Your task to perform on an android device: install app "Cash App" Image 0: 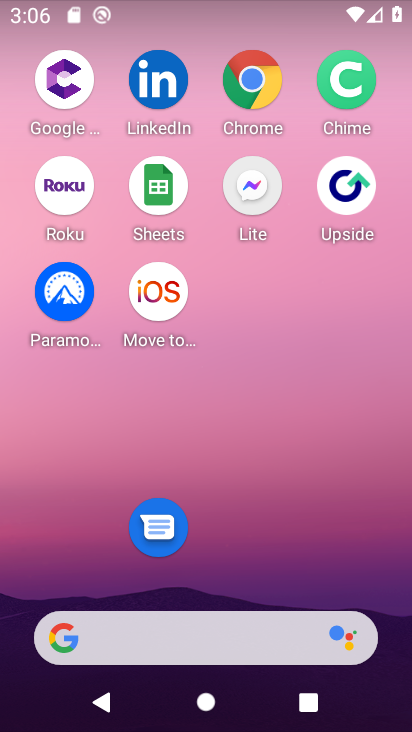
Step 0: drag from (255, 585) to (310, 93)
Your task to perform on an android device: install app "Cash App" Image 1: 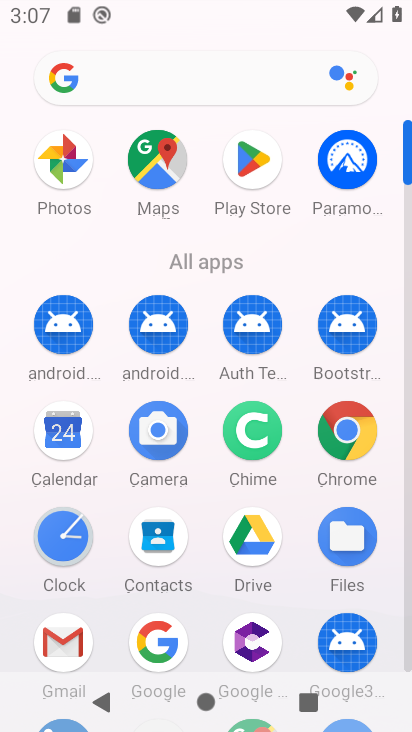
Step 1: click (256, 163)
Your task to perform on an android device: install app "Cash App" Image 2: 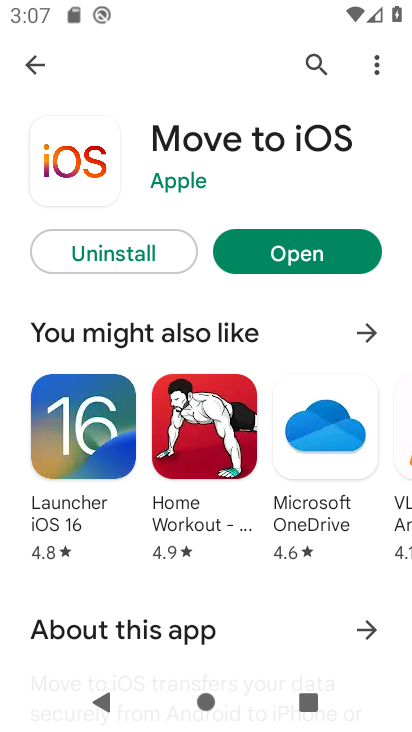
Step 2: click (308, 78)
Your task to perform on an android device: install app "Cash App" Image 3: 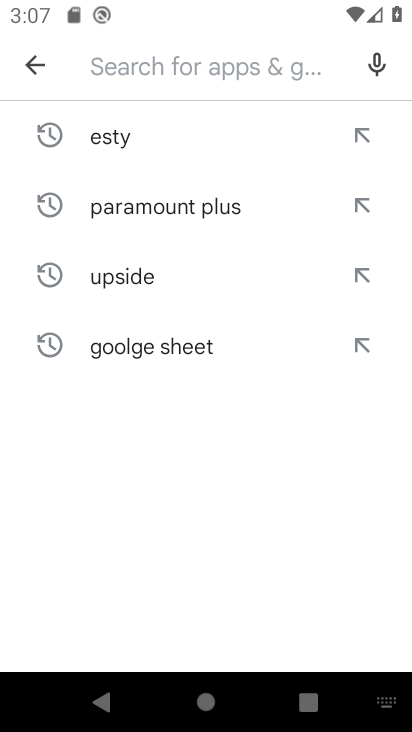
Step 3: type "cash app"
Your task to perform on an android device: install app "Cash App" Image 4: 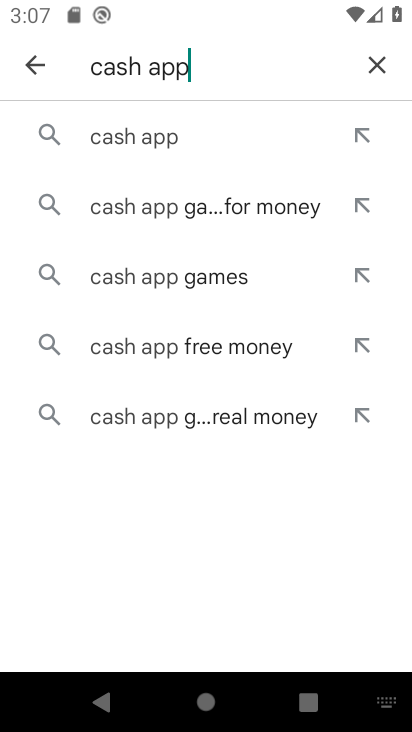
Step 4: click (209, 118)
Your task to perform on an android device: install app "Cash App" Image 5: 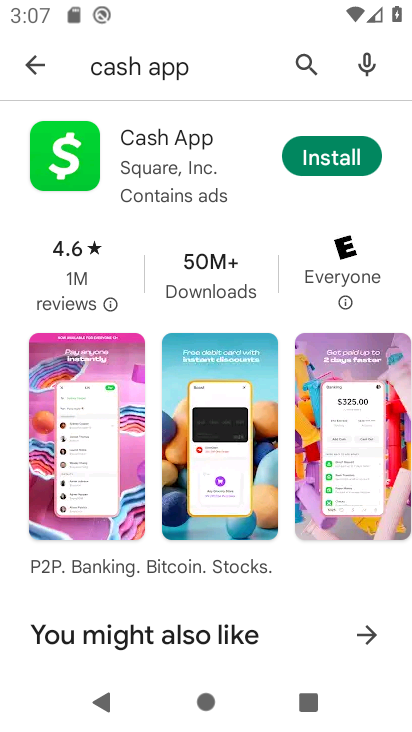
Step 5: click (346, 148)
Your task to perform on an android device: install app "Cash App" Image 6: 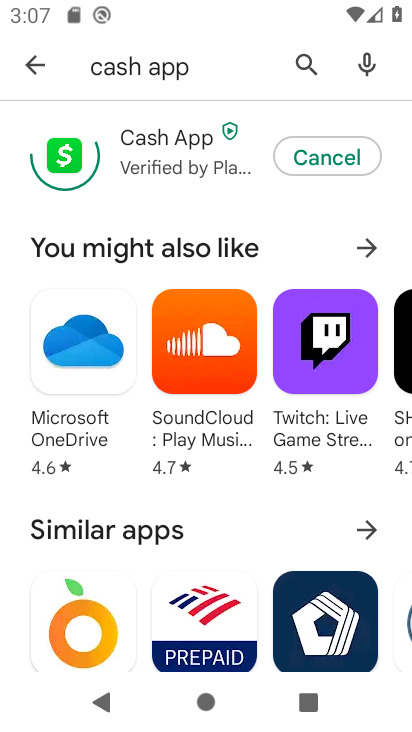
Step 6: task complete